Your task to perform on an android device: Go to wifi settings Image 0: 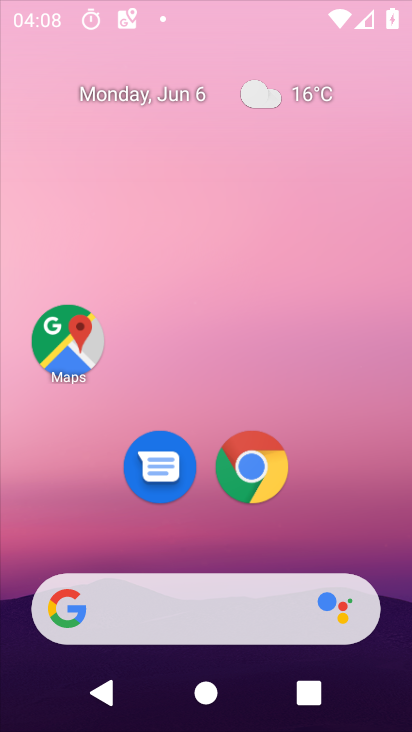
Step 0: press home button
Your task to perform on an android device: Go to wifi settings Image 1: 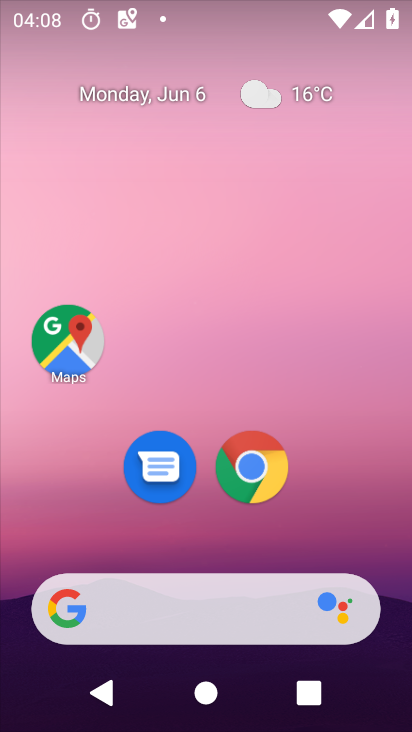
Step 1: drag from (211, 540) to (210, 31)
Your task to perform on an android device: Go to wifi settings Image 2: 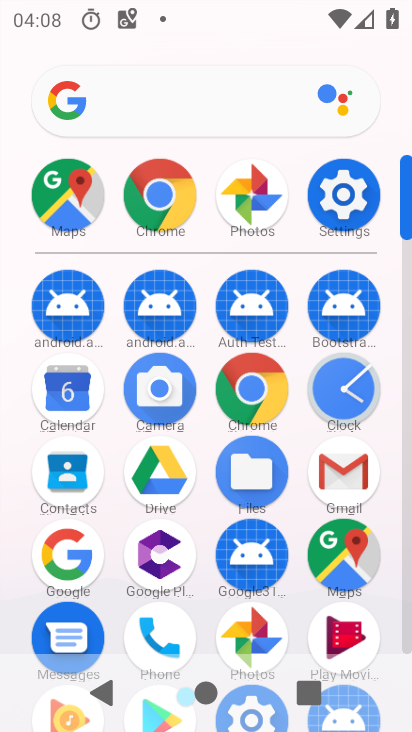
Step 2: click (344, 193)
Your task to perform on an android device: Go to wifi settings Image 3: 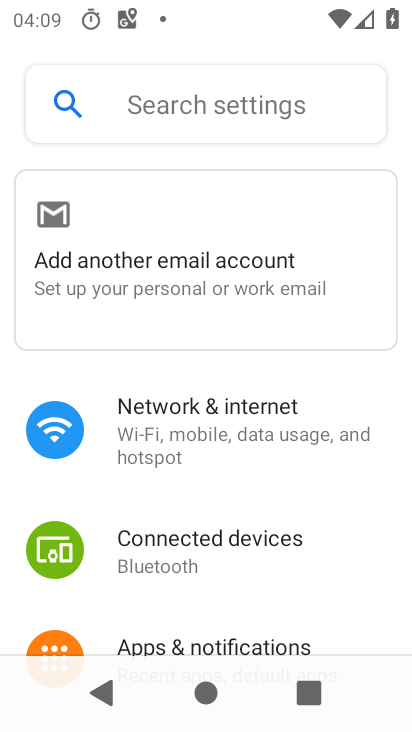
Step 3: click (230, 430)
Your task to perform on an android device: Go to wifi settings Image 4: 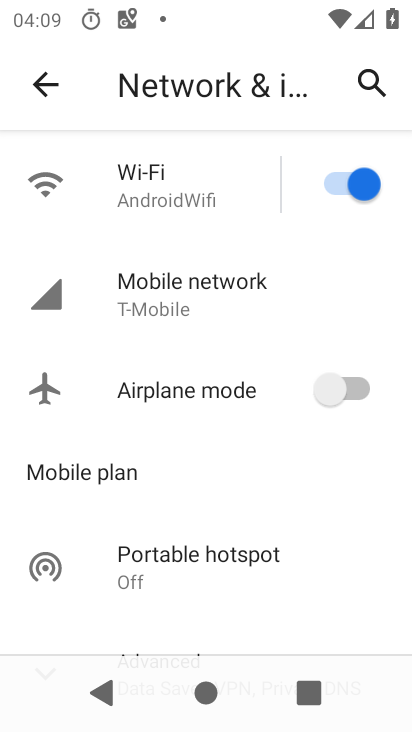
Step 4: click (241, 181)
Your task to perform on an android device: Go to wifi settings Image 5: 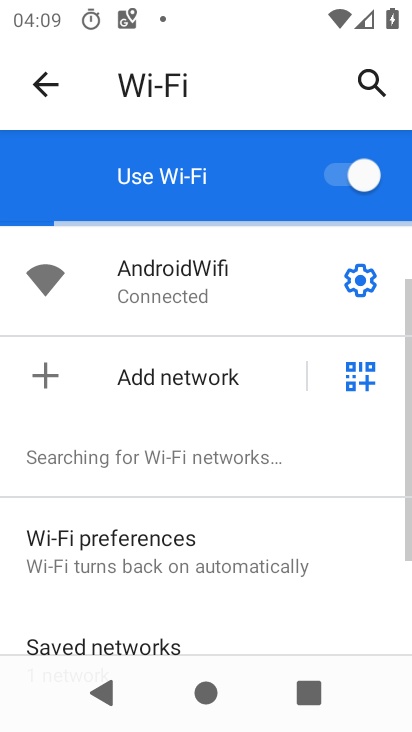
Step 5: task complete